Your task to perform on an android device: Do I have any events today? Image 0: 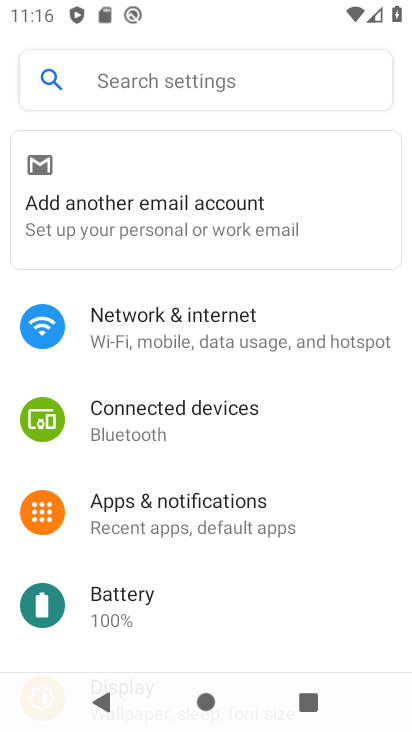
Step 0: press home button
Your task to perform on an android device: Do I have any events today? Image 1: 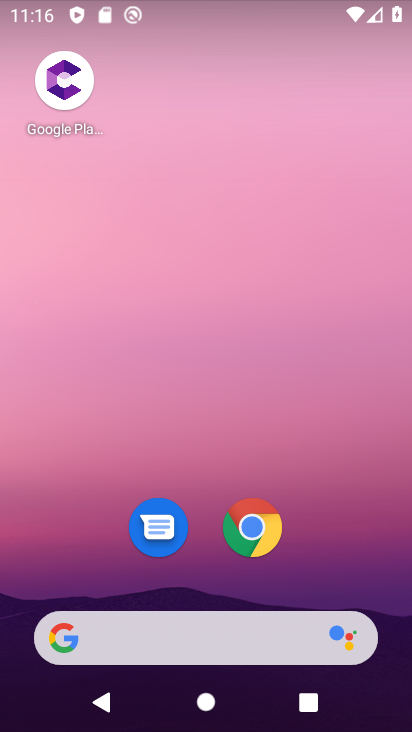
Step 1: drag from (154, 623) to (1, 92)
Your task to perform on an android device: Do I have any events today? Image 2: 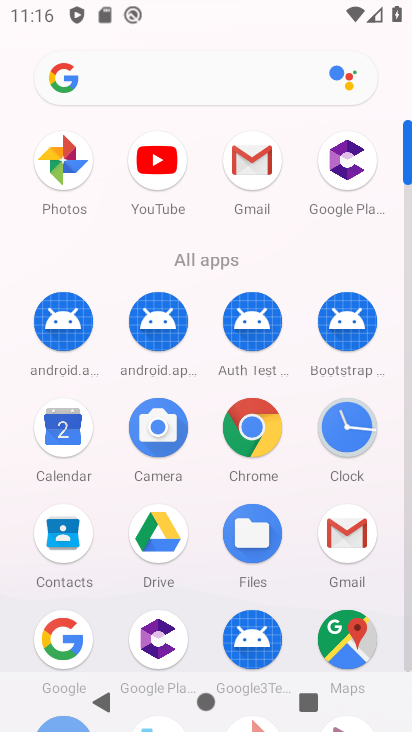
Step 2: click (62, 425)
Your task to perform on an android device: Do I have any events today? Image 3: 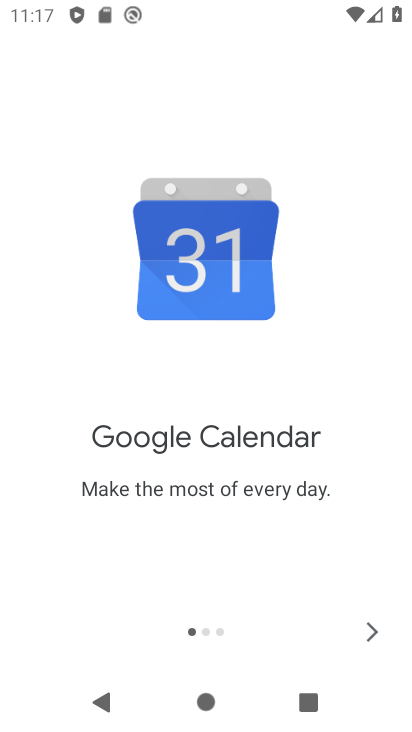
Step 3: click (372, 639)
Your task to perform on an android device: Do I have any events today? Image 4: 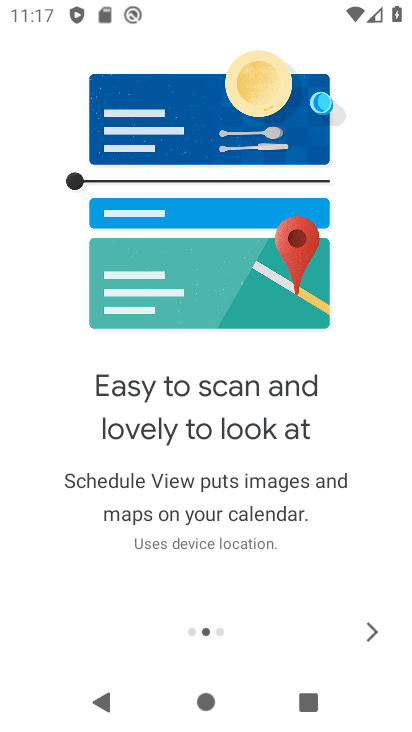
Step 4: click (375, 630)
Your task to perform on an android device: Do I have any events today? Image 5: 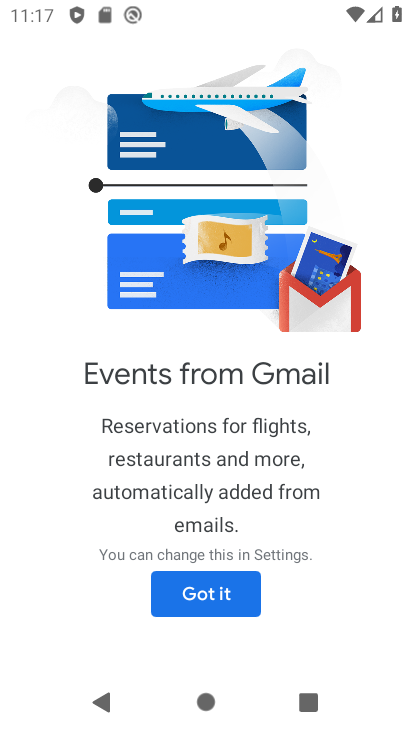
Step 5: click (236, 583)
Your task to perform on an android device: Do I have any events today? Image 6: 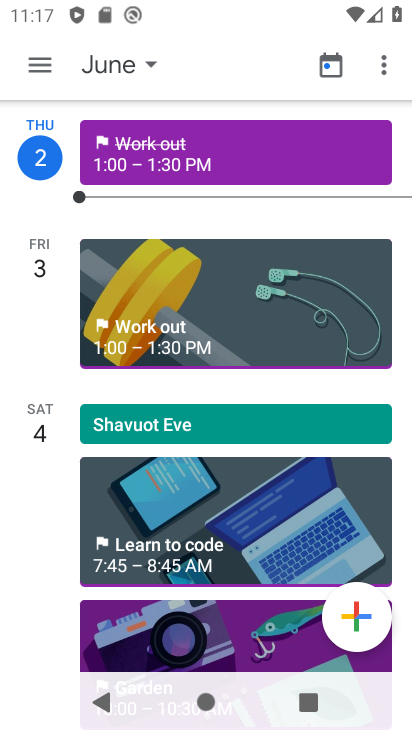
Step 6: task complete